Your task to perform on an android device: Do I have any events tomorrow? Image 0: 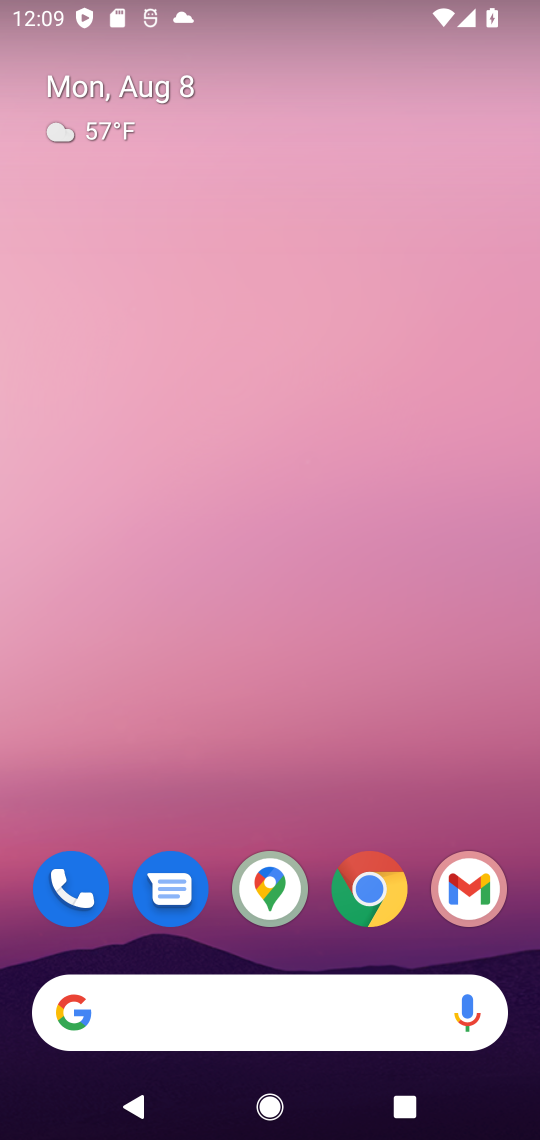
Step 0: drag from (411, 810) to (356, 372)
Your task to perform on an android device: Do I have any events tomorrow? Image 1: 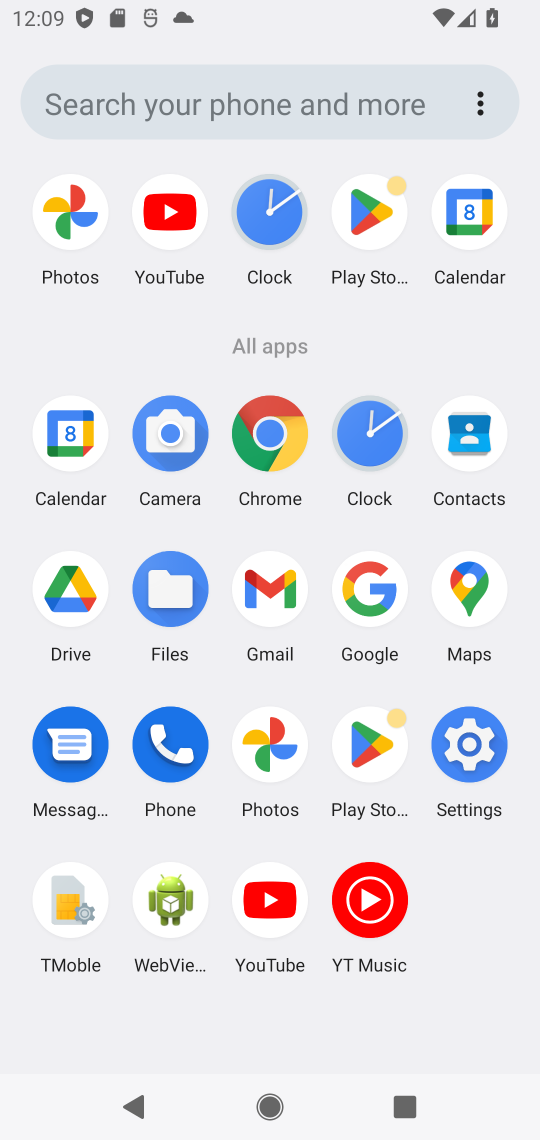
Step 1: click (91, 438)
Your task to perform on an android device: Do I have any events tomorrow? Image 2: 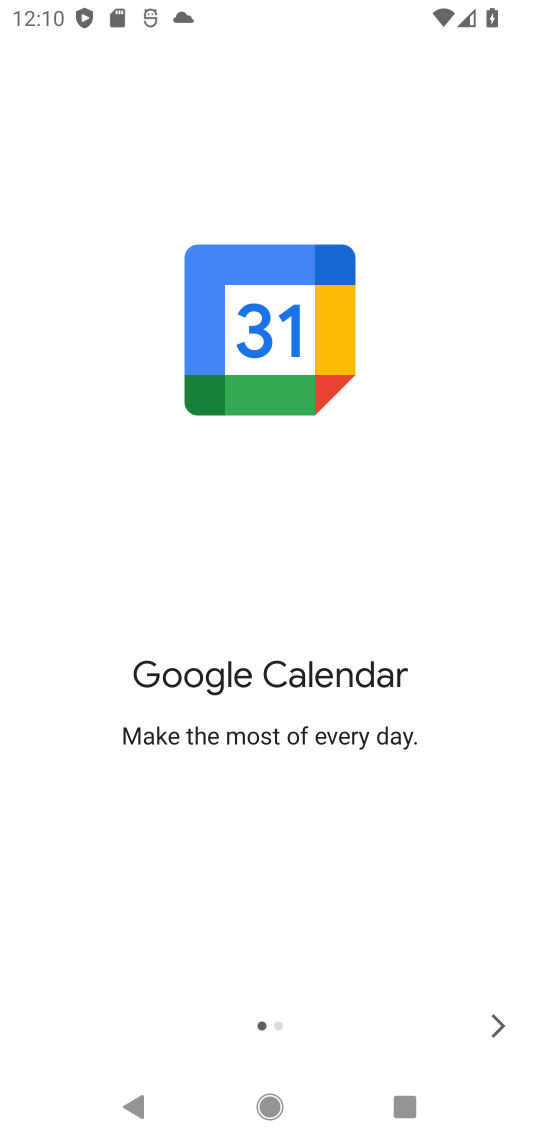
Step 2: click (488, 1021)
Your task to perform on an android device: Do I have any events tomorrow? Image 3: 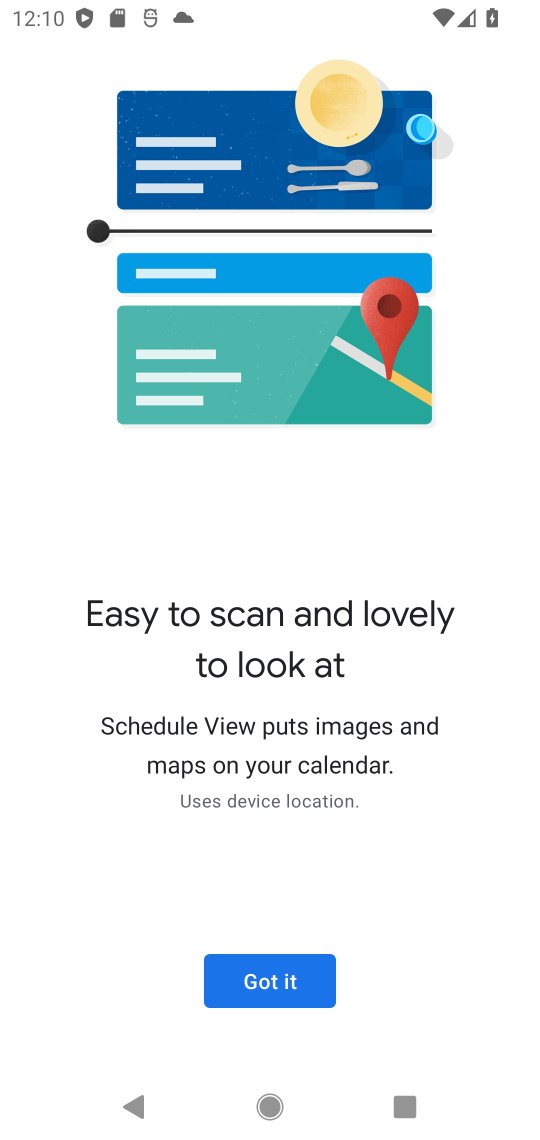
Step 3: click (407, 1031)
Your task to perform on an android device: Do I have any events tomorrow? Image 4: 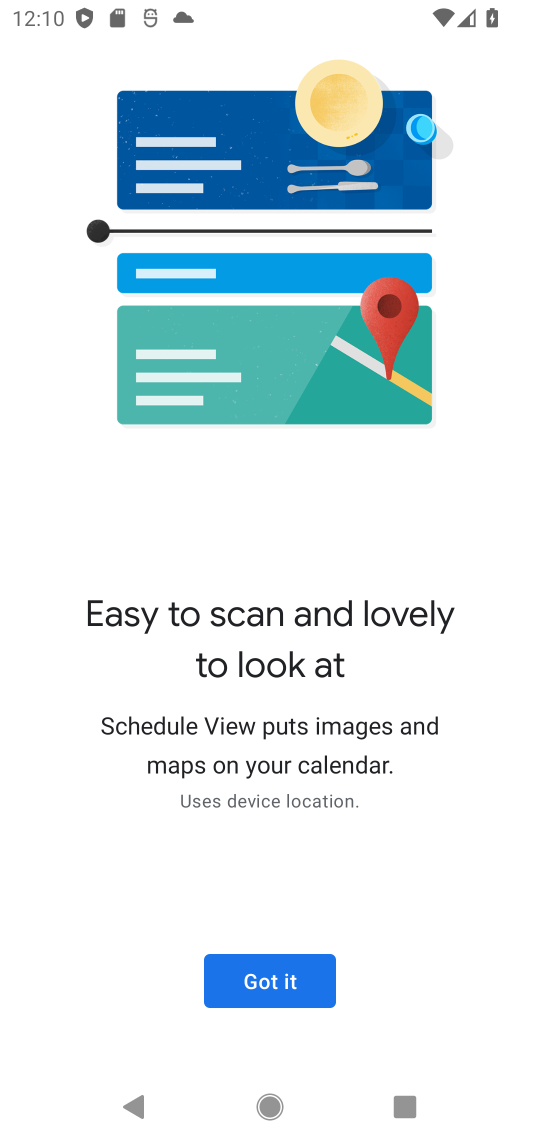
Step 4: click (293, 970)
Your task to perform on an android device: Do I have any events tomorrow? Image 5: 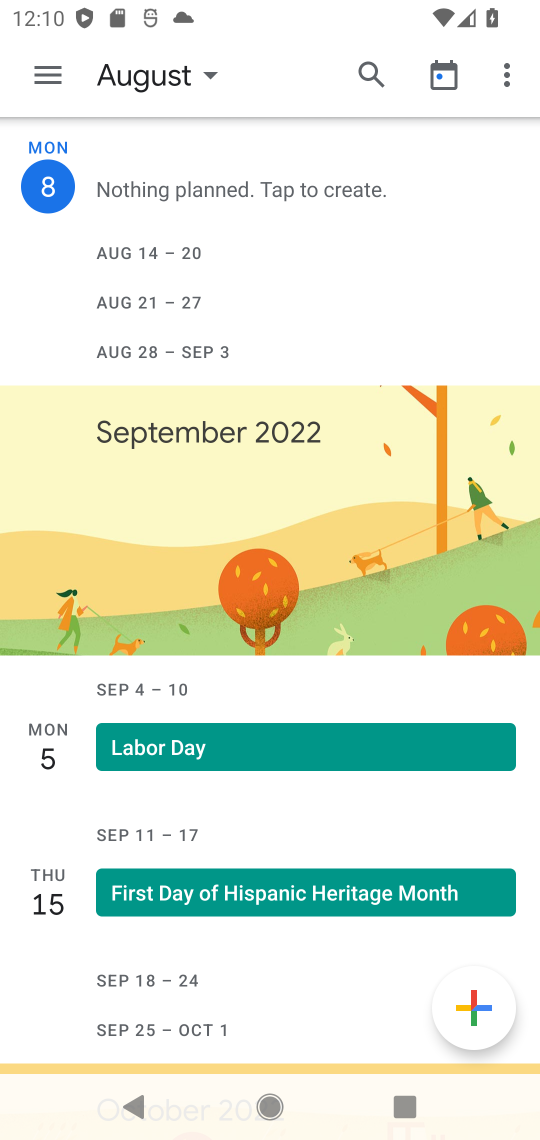
Step 5: click (38, 88)
Your task to perform on an android device: Do I have any events tomorrow? Image 6: 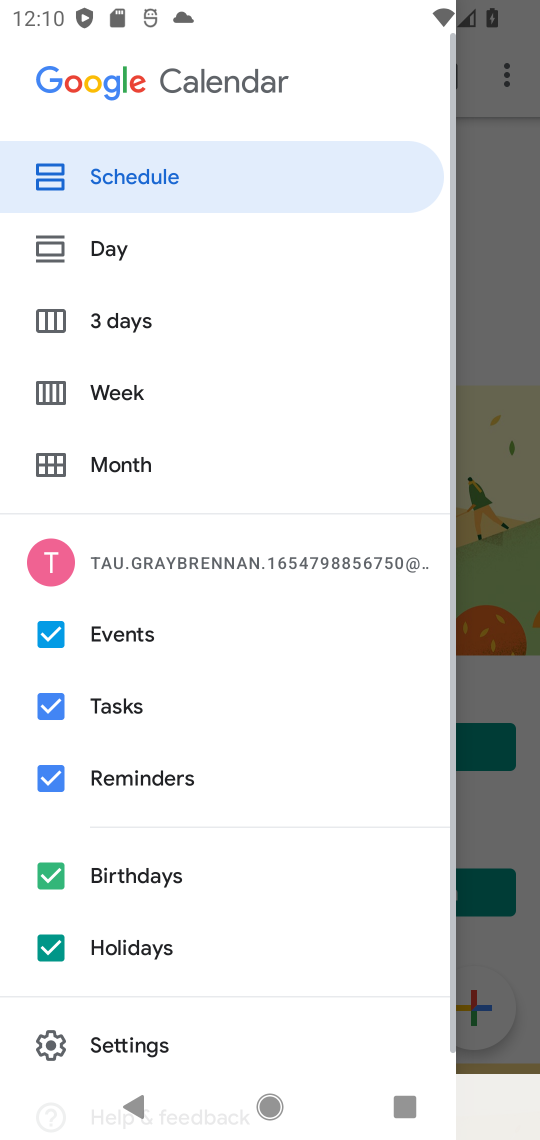
Step 6: click (127, 245)
Your task to perform on an android device: Do I have any events tomorrow? Image 7: 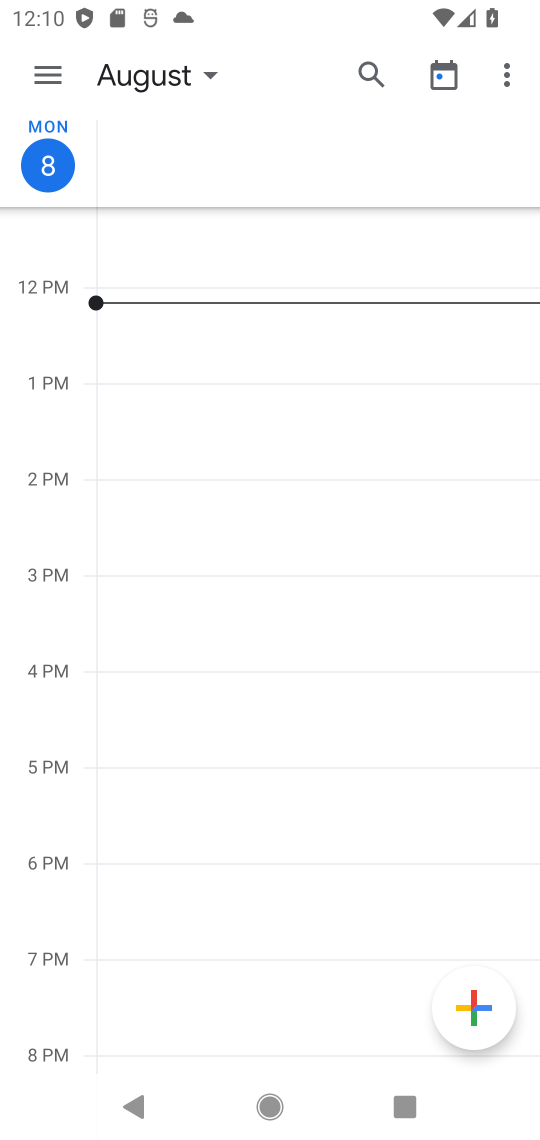
Step 7: click (207, 63)
Your task to perform on an android device: Do I have any events tomorrow? Image 8: 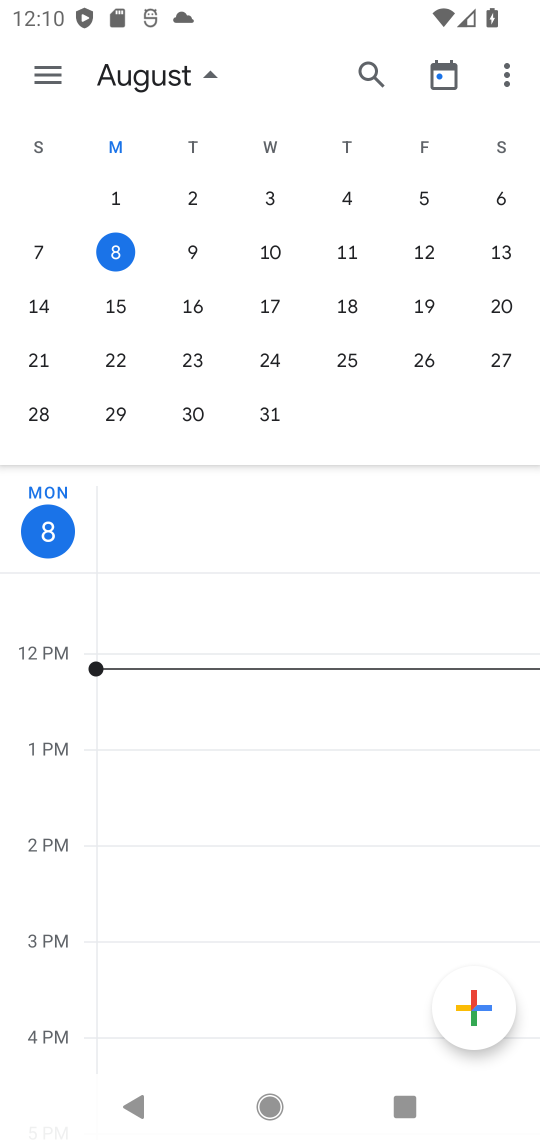
Step 8: click (190, 245)
Your task to perform on an android device: Do I have any events tomorrow? Image 9: 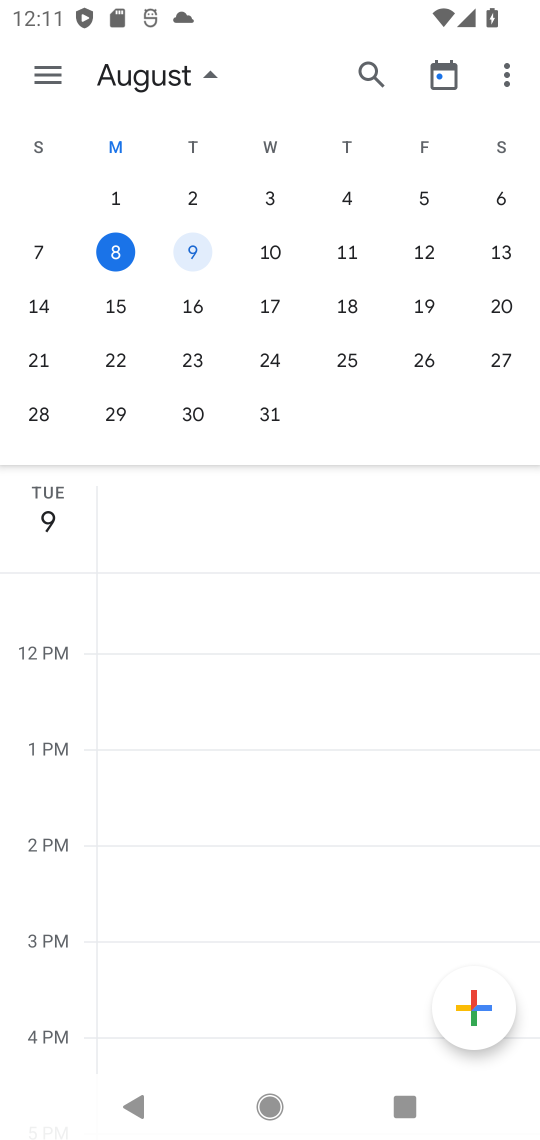
Step 9: task complete